Your task to perform on an android device: turn on improve location accuracy Image 0: 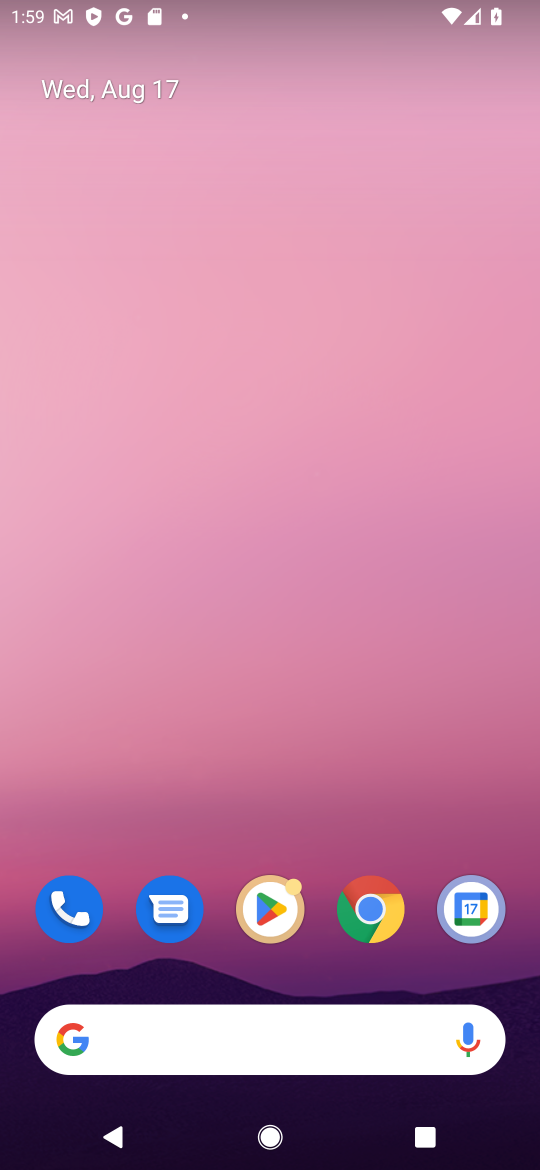
Step 0: drag from (281, 840) to (382, 364)
Your task to perform on an android device: turn on improve location accuracy Image 1: 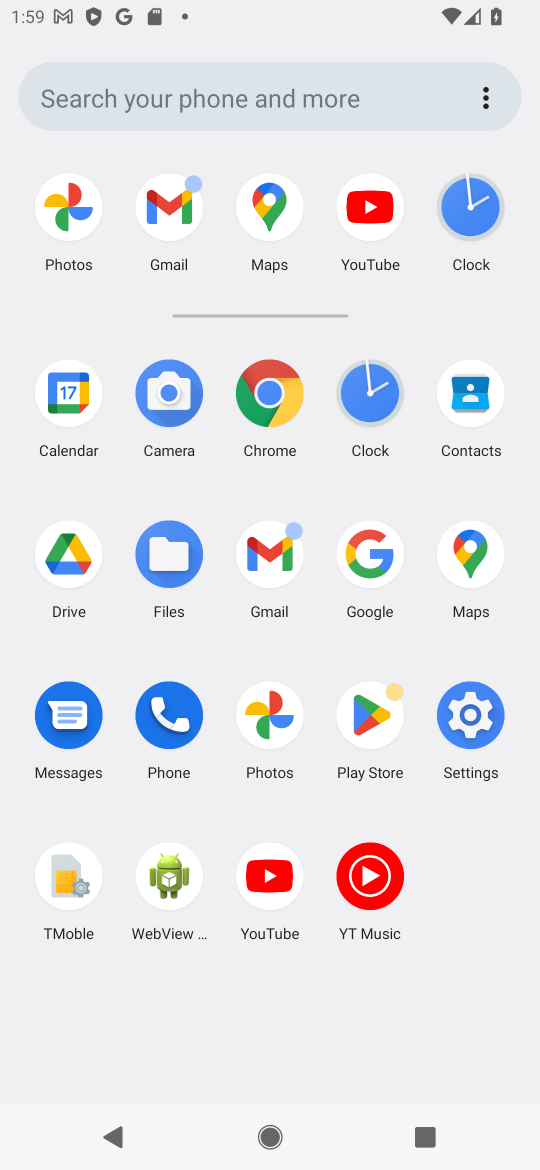
Step 1: click (464, 713)
Your task to perform on an android device: turn on improve location accuracy Image 2: 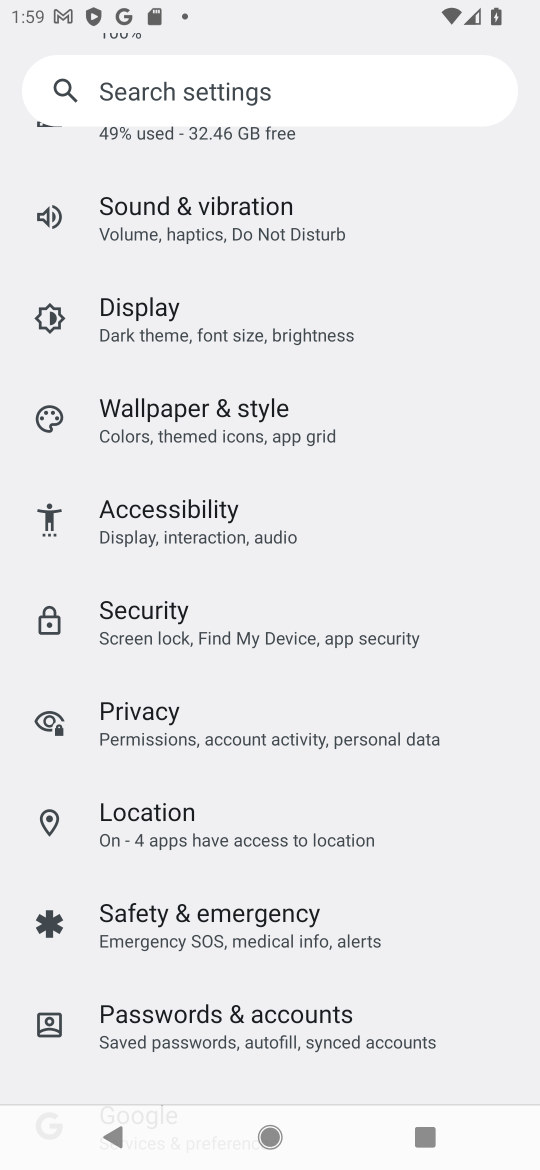
Step 2: task complete